Your task to perform on an android device: change timer sound Image 0: 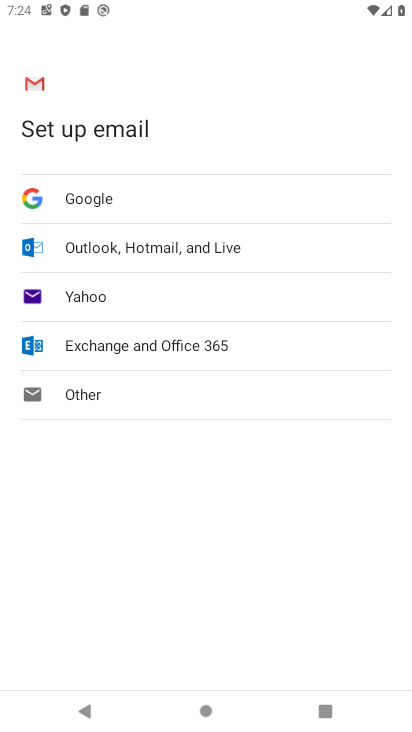
Step 0: press home button
Your task to perform on an android device: change timer sound Image 1: 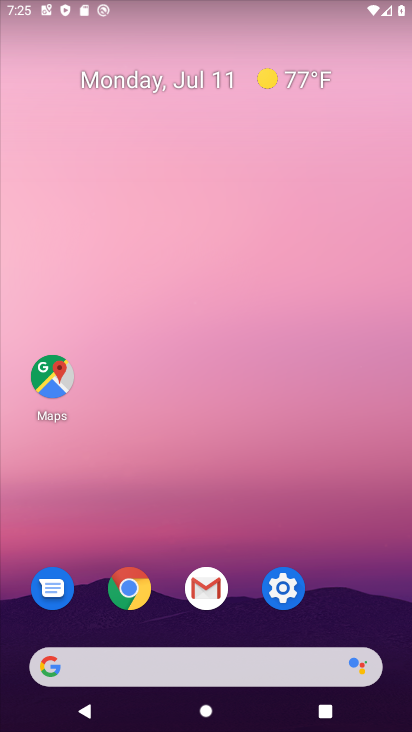
Step 1: drag from (257, 692) to (223, 181)
Your task to perform on an android device: change timer sound Image 2: 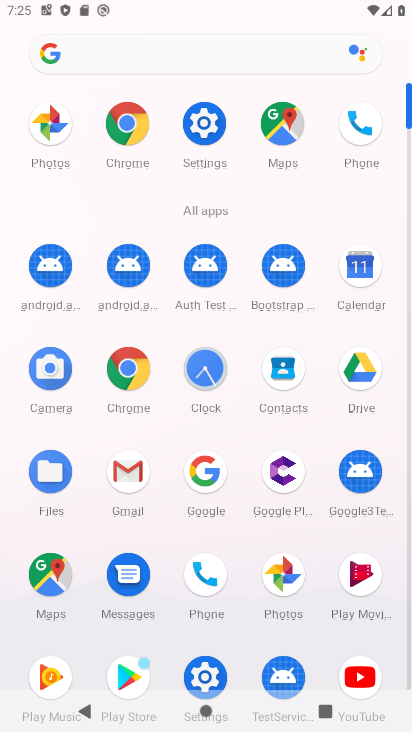
Step 2: click (214, 387)
Your task to perform on an android device: change timer sound Image 3: 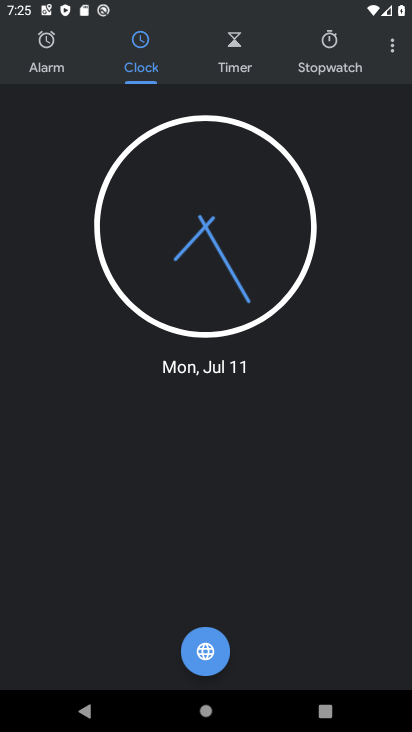
Step 3: click (389, 47)
Your task to perform on an android device: change timer sound Image 4: 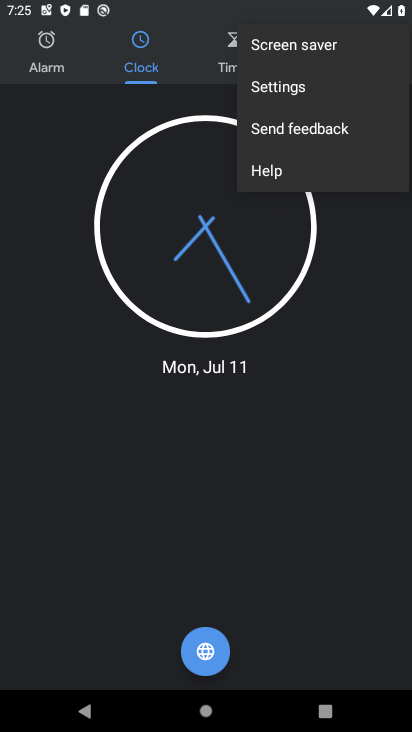
Step 4: click (335, 87)
Your task to perform on an android device: change timer sound Image 5: 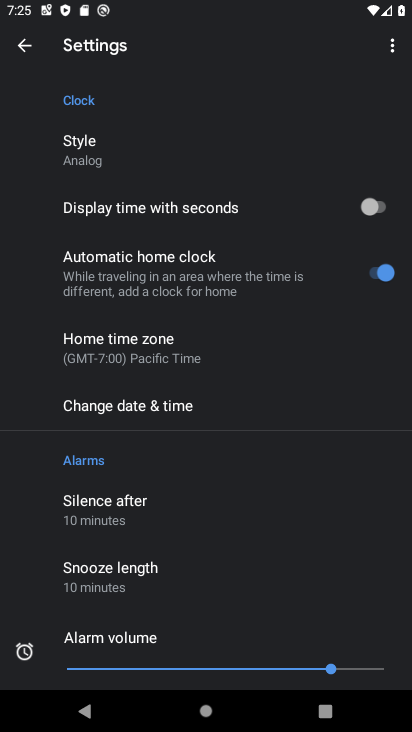
Step 5: drag from (164, 567) to (209, 251)
Your task to perform on an android device: change timer sound Image 6: 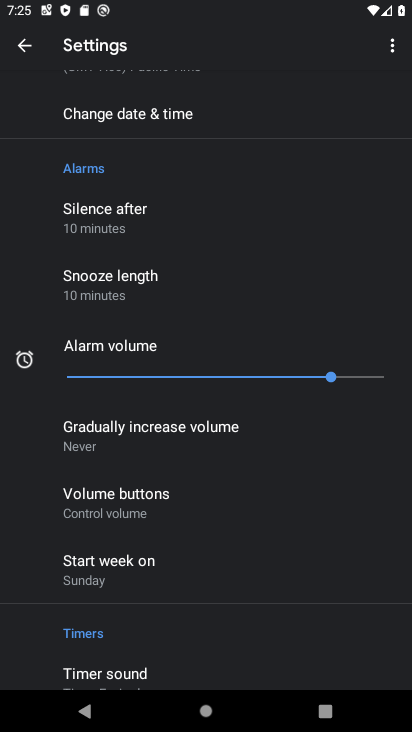
Step 6: click (138, 669)
Your task to perform on an android device: change timer sound Image 7: 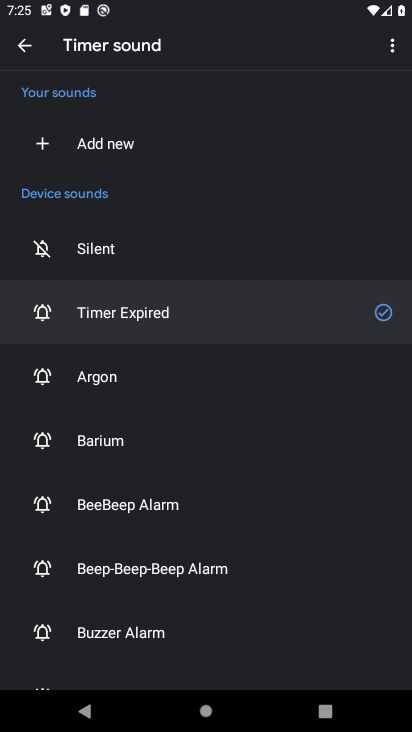
Step 7: click (136, 431)
Your task to perform on an android device: change timer sound Image 8: 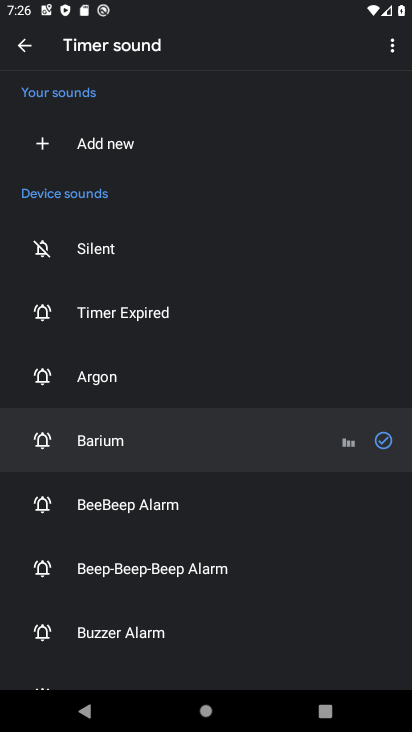
Step 8: task complete